Your task to perform on an android device: make emails show in primary in the gmail app Image 0: 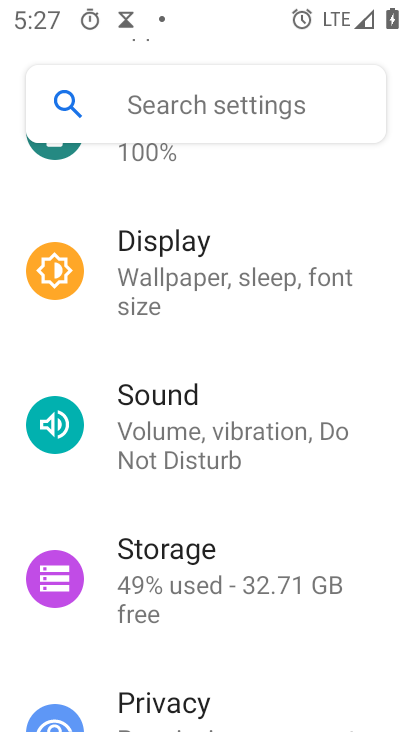
Step 0: press home button
Your task to perform on an android device: make emails show in primary in the gmail app Image 1: 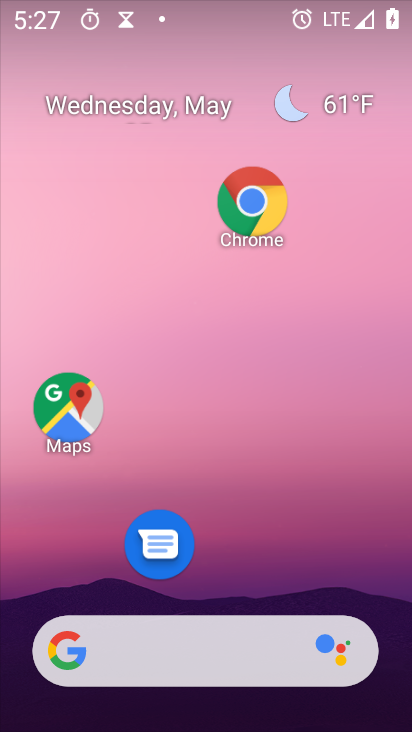
Step 1: drag from (244, 631) to (222, 260)
Your task to perform on an android device: make emails show in primary in the gmail app Image 2: 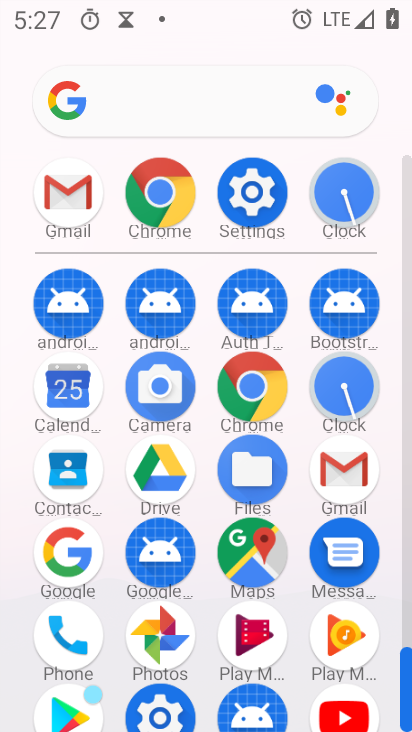
Step 2: click (67, 210)
Your task to perform on an android device: make emails show in primary in the gmail app Image 3: 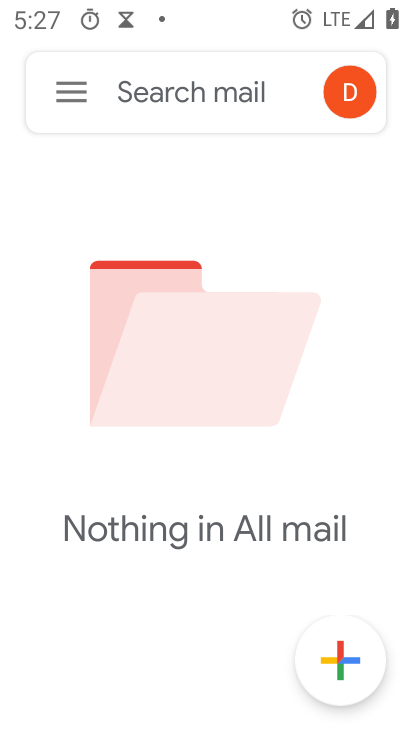
Step 3: click (59, 101)
Your task to perform on an android device: make emails show in primary in the gmail app Image 4: 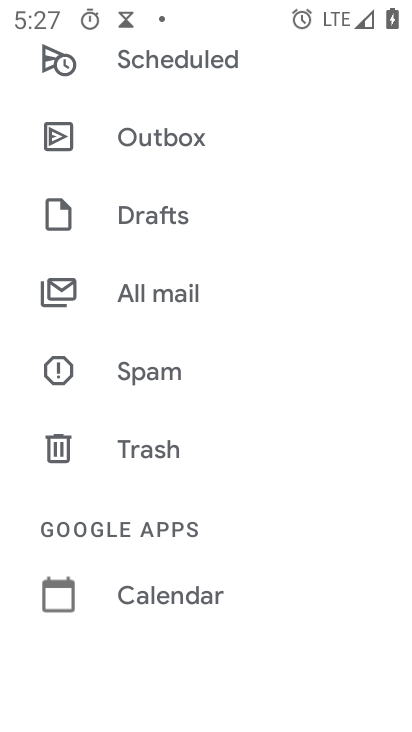
Step 4: drag from (185, 616) to (187, 248)
Your task to perform on an android device: make emails show in primary in the gmail app Image 5: 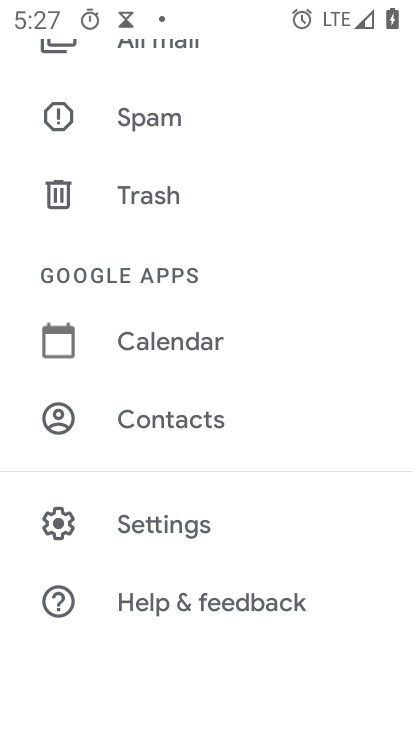
Step 5: click (165, 525)
Your task to perform on an android device: make emails show in primary in the gmail app Image 6: 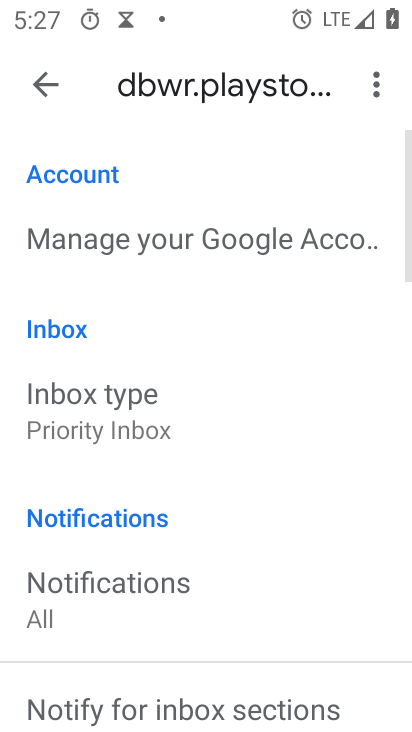
Step 6: click (136, 429)
Your task to perform on an android device: make emails show in primary in the gmail app Image 7: 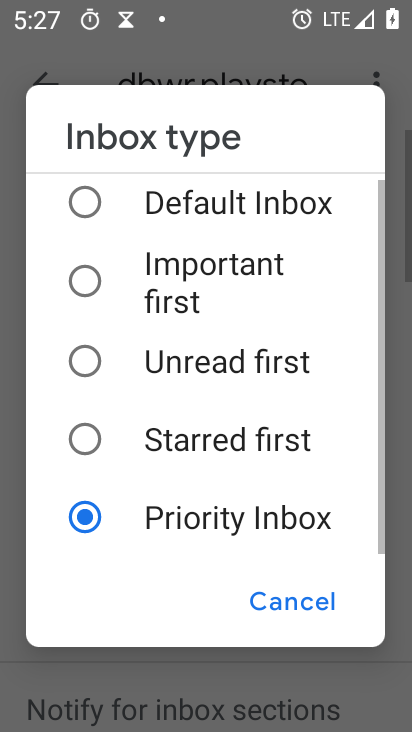
Step 7: click (256, 200)
Your task to perform on an android device: make emails show in primary in the gmail app Image 8: 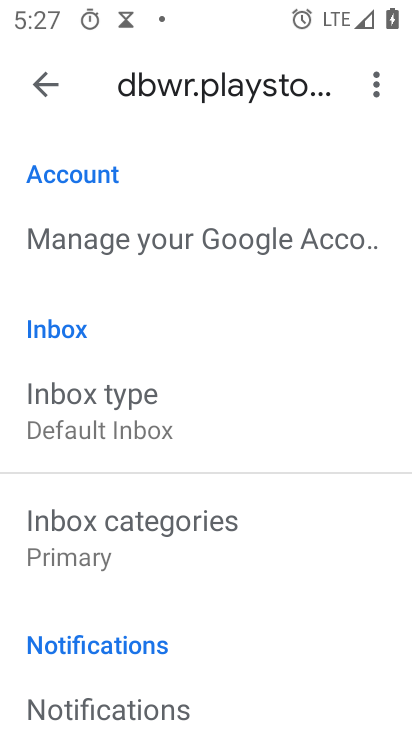
Step 8: click (47, 88)
Your task to perform on an android device: make emails show in primary in the gmail app Image 9: 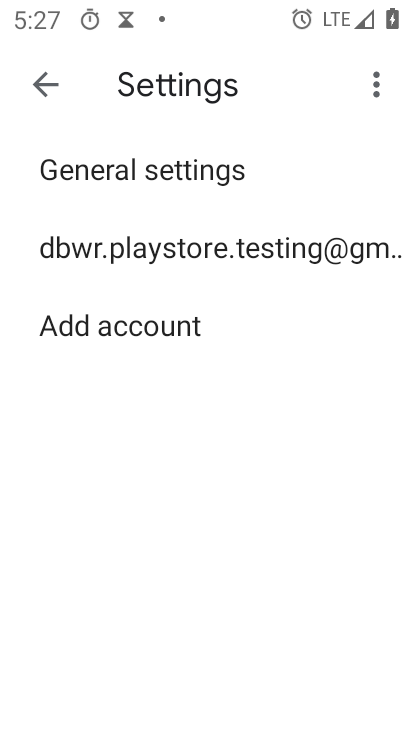
Step 9: task complete